Your task to perform on an android device: Show me the alarms in the clock app Image 0: 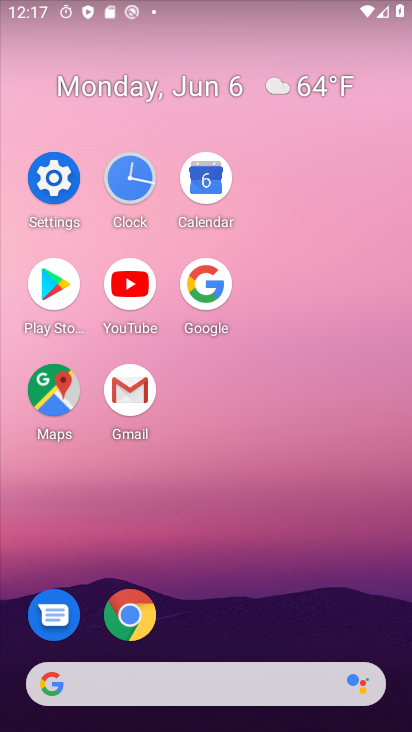
Step 0: click (131, 193)
Your task to perform on an android device: Show me the alarms in the clock app Image 1: 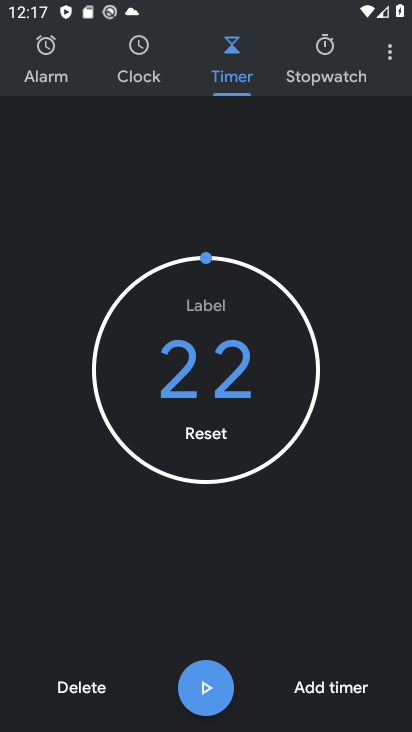
Step 1: click (62, 41)
Your task to perform on an android device: Show me the alarms in the clock app Image 2: 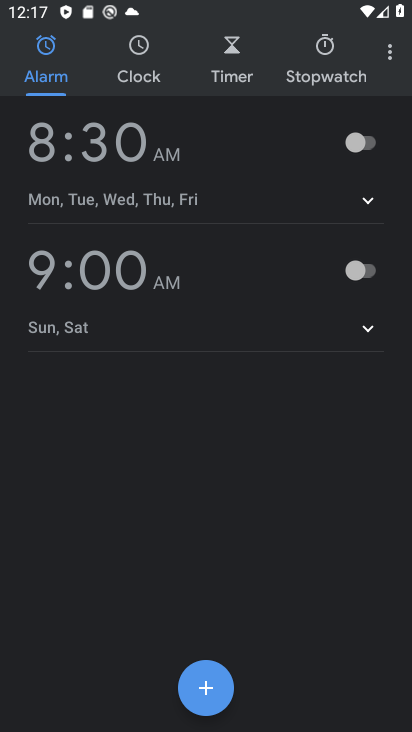
Step 2: task complete